Your task to perform on an android device: turn off location Image 0: 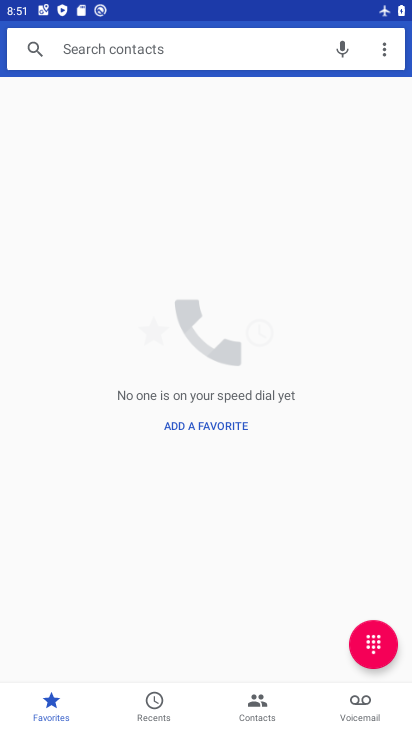
Step 0: press home button
Your task to perform on an android device: turn off location Image 1: 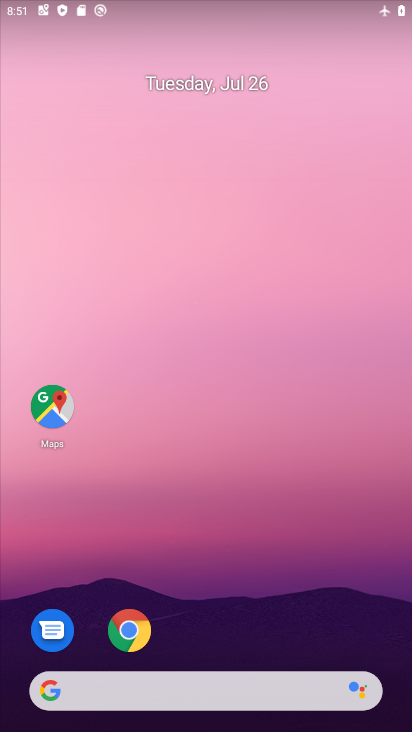
Step 1: drag from (274, 664) to (246, 191)
Your task to perform on an android device: turn off location Image 2: 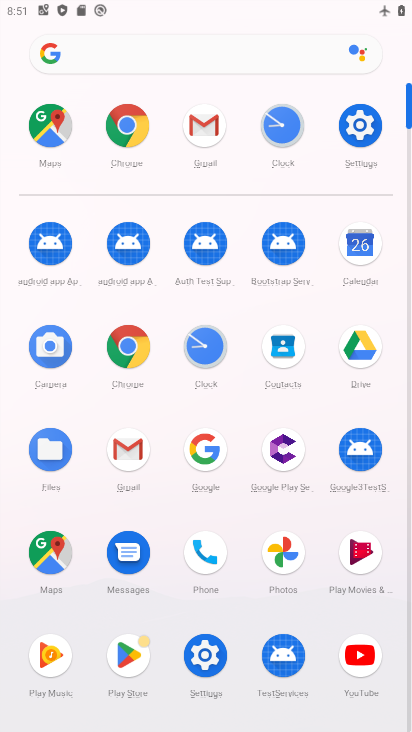
Step 2: click (357, 128)
Your task to perform on an android device: turn off location Image 3: 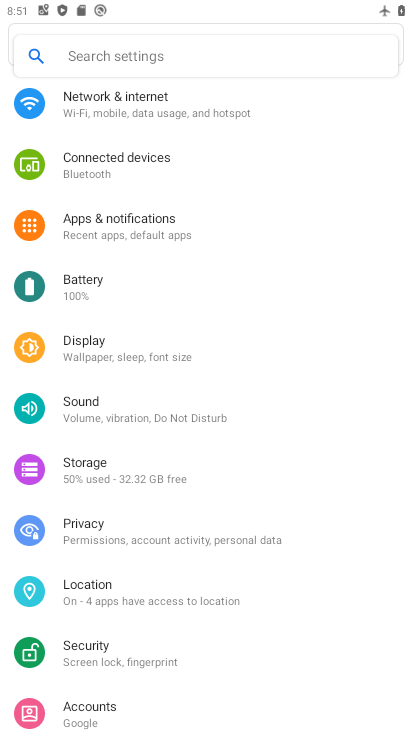
Step 3: click (150, 580)
Your task to perform on an android device: turn off location Image 4: 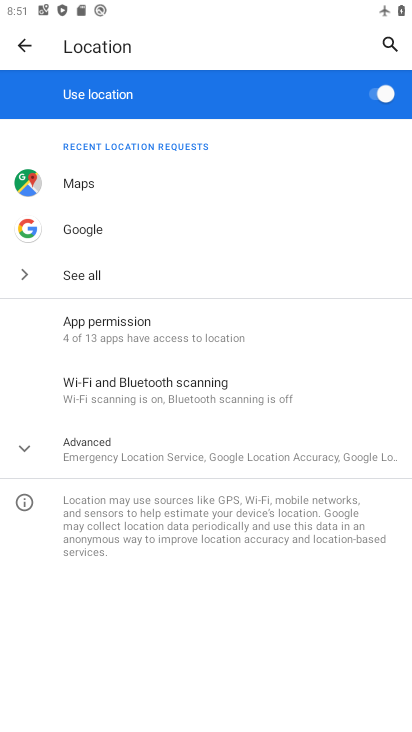
Step 4: click (131, 443)
Your task to perform on an android device: turn off location Image 5: 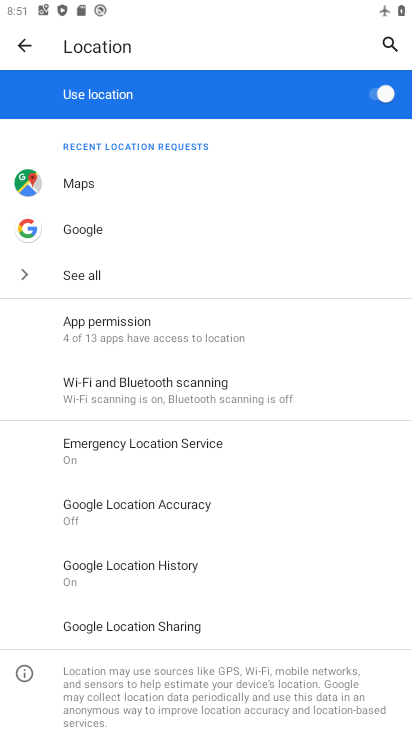
Step 5: task complete